Your task to perform on an android device: When is my next appointment? Image 0: 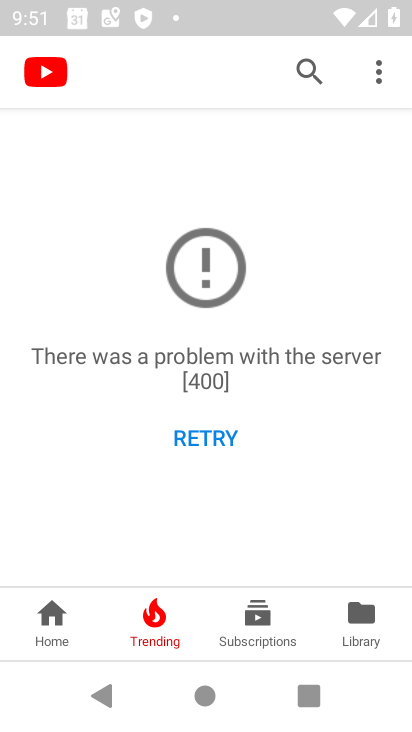
Step 0: press home button
Your task to perform on an android device: When is my next appointment? Image 1: 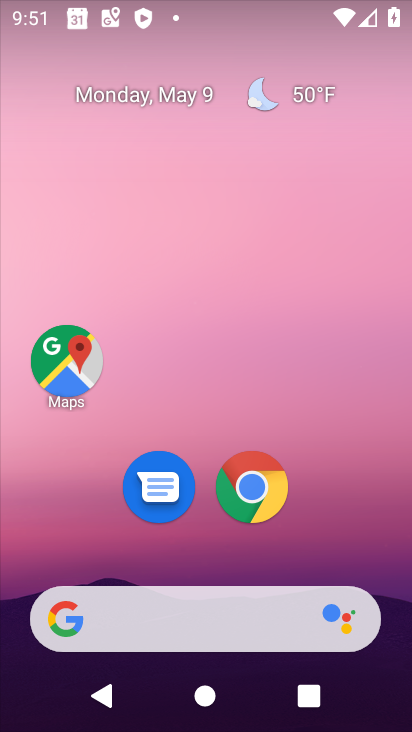
Step 1: drag from (37, 658) to (294, 100)
Your task to perform on an android device: When is my next appointment? Image 2: 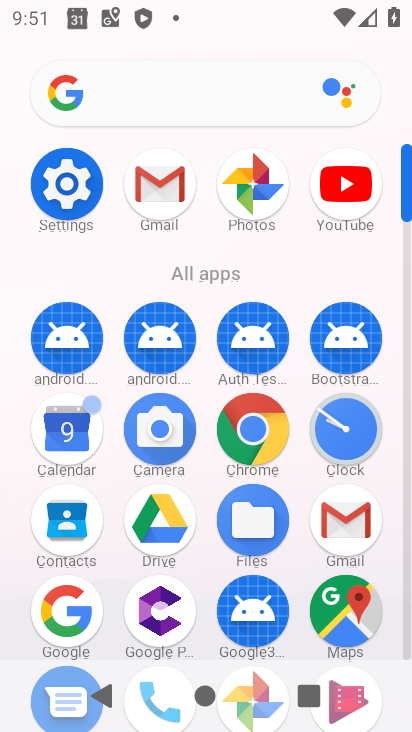
Step 2: click (48, 436)
Your task to perform on an android device: When is my next appointment? Image 3: 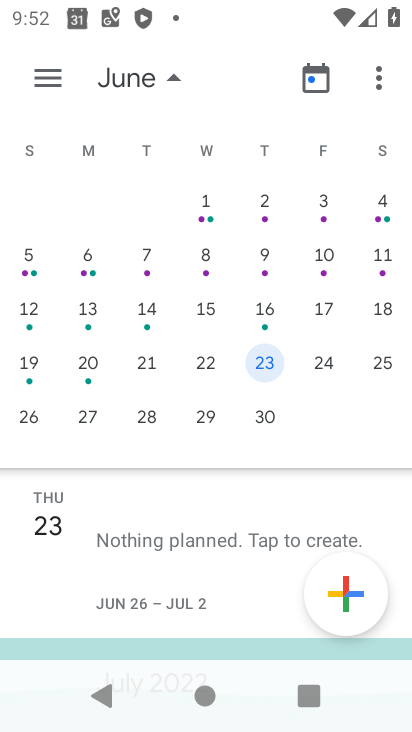
Step 3: drag from (8, 340) to (388, 346)
Your task to perform on an android device: When is my next appointment? Image 4: 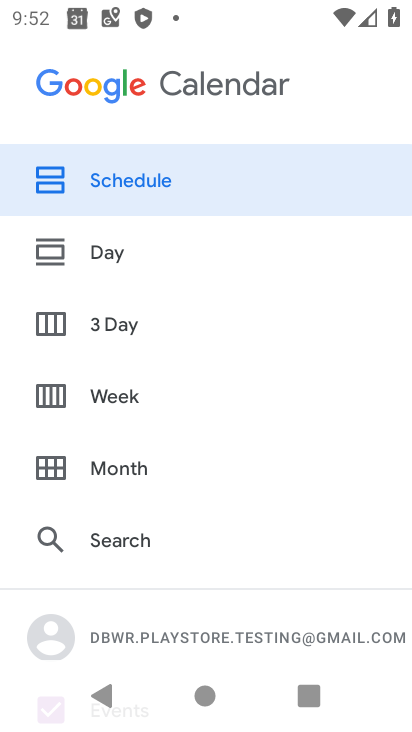
Step 4: press back button
Your task to perform on an android device: When is my next appointment? Image 5: 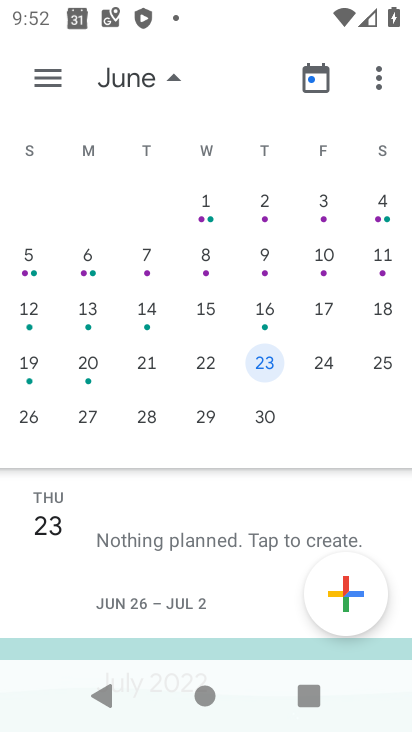
Step 5: drag from (103, 250) to (396, 258)
Your task to perform on an android device: When is my next appointment? Image 6: 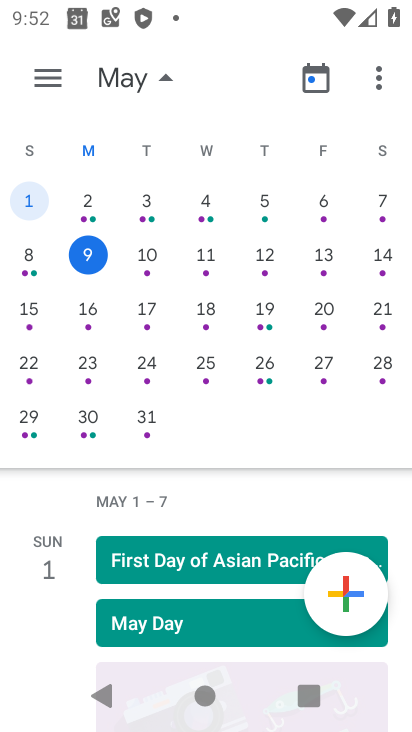
Step 6: click (99, 268)
Your task to perform on an android device: When is my next appointment? Image 7: 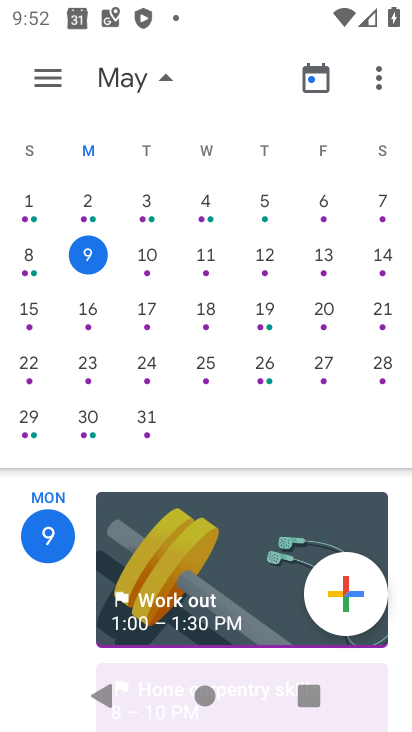
Step 7: task complete